Your task to perform on an android device: Open the phone app and click the voicemail tab. Image 0: 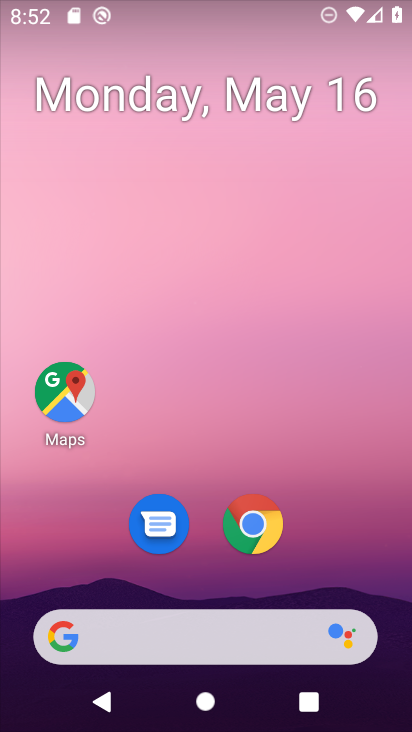
Step 0: drag from (309, 537) to (280, 41)
Your task to perform on an android device: Open the phone app and click the voicemail tab. Image 1: 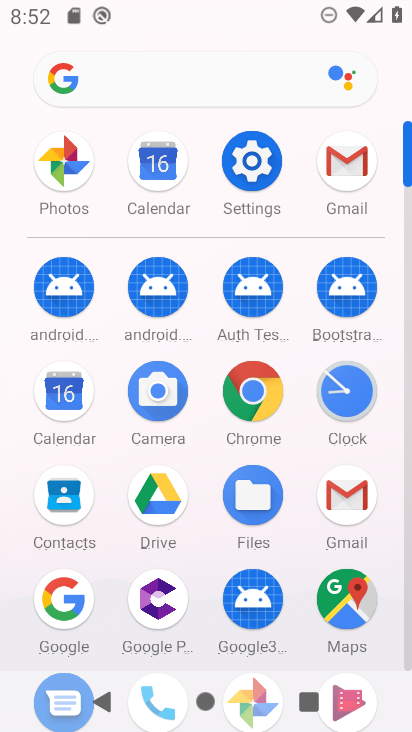
Step 1: drag from (193, 535) to (196, 324)
Your task to perform on an android device: Open the phone app and click the voicemail tab. Image 2: 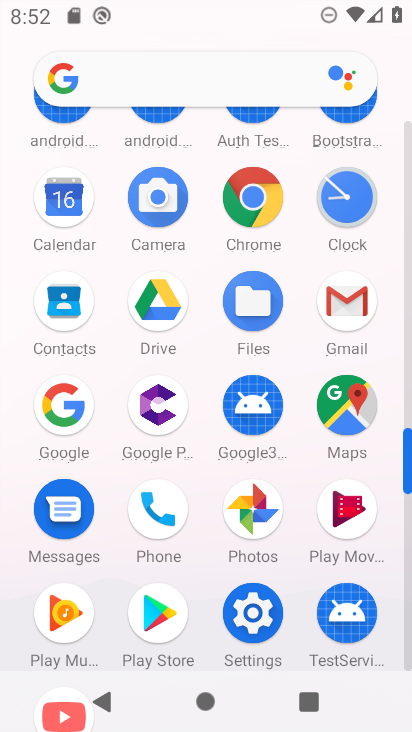
Step 2: click (164, 512)
Your task to perform on an android device: Open the phone app and click the voicemail tab. Image 3: 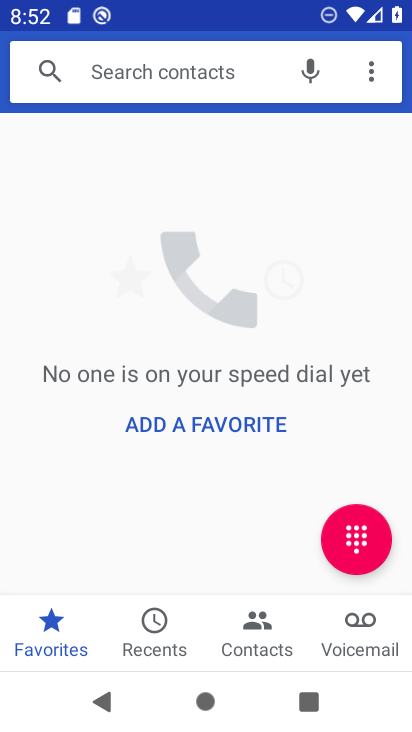
Step 3: click (375, 631)
Your task to perform on an android device: Open the phone app and click the voicemail tab. Image 4: 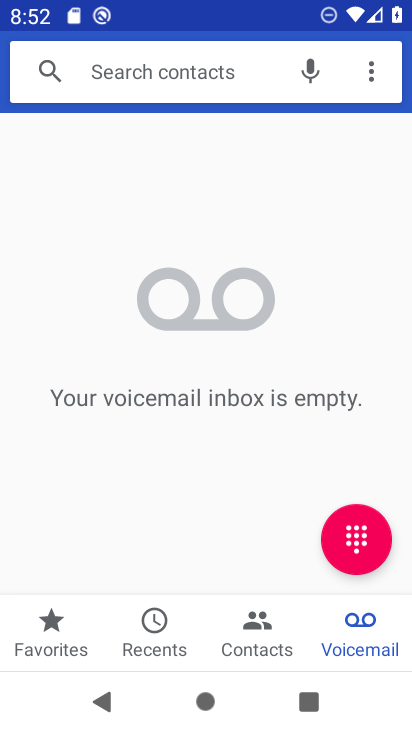
Step 4: task complete